Your task to perform on an android device: Open Android settings Image 0: 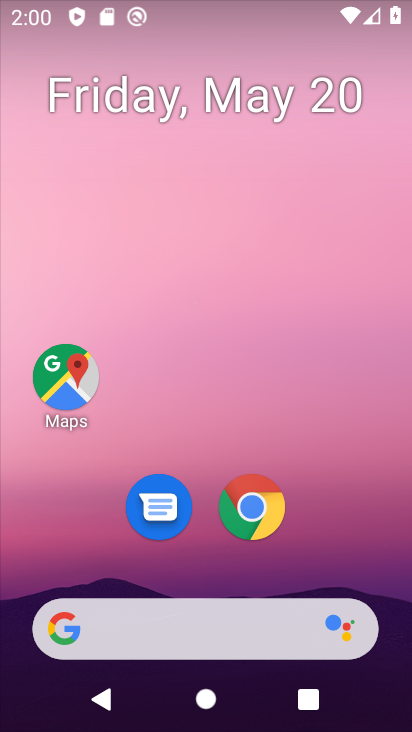
Step 0: drag from (224, 340) to (237, 138)
Your task to perform on an android device: Open Android settings Image 1: 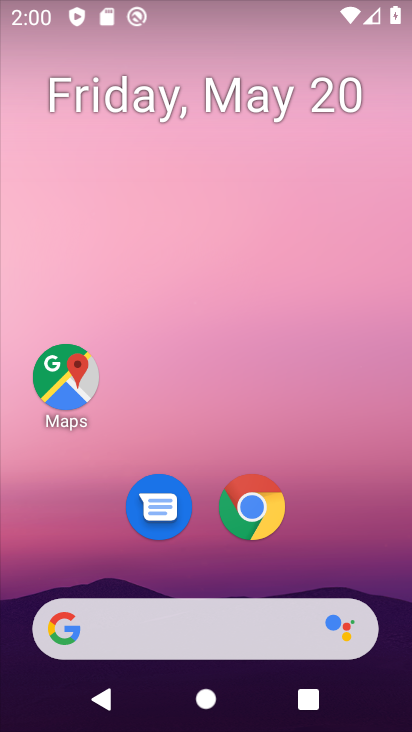
Step 1: drag from (207, 573) to (259, 72)
Your task to perform on an android device: Open Android settings Image 2: 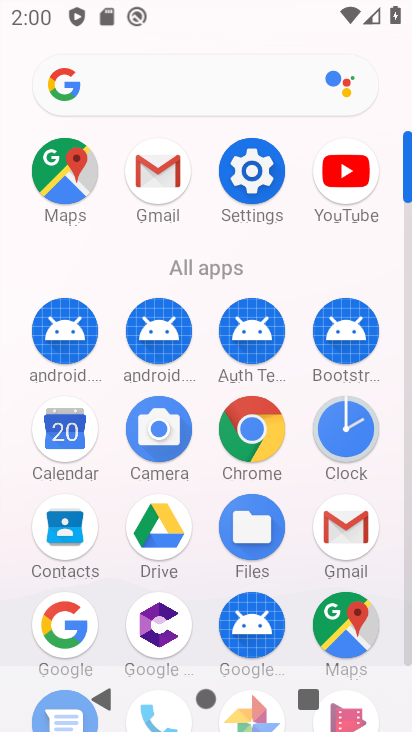
Step 2: click (243, 171)
Your task to perform on an android device: Open Android settings Image 3: 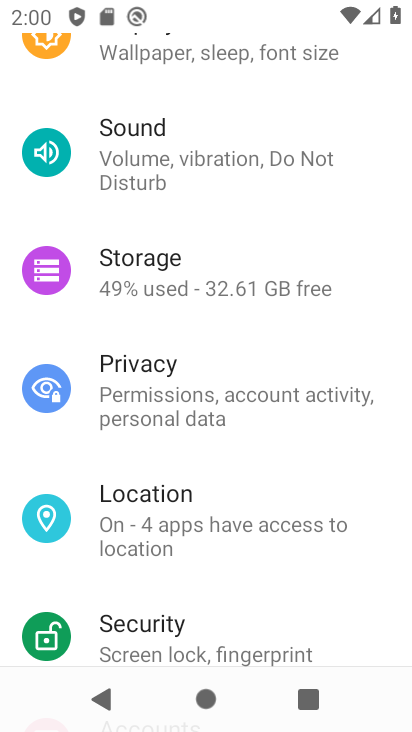
Step 3: task complete